Your task to perform on an android device: Is it going to rain tomorrow? Image 0: 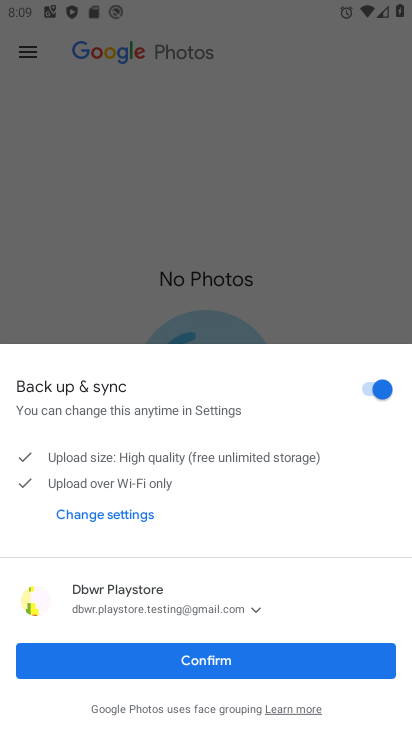
Step 0: press home button
Your task to perform on an android device: Is it going to rain tomorrow? Image 1: 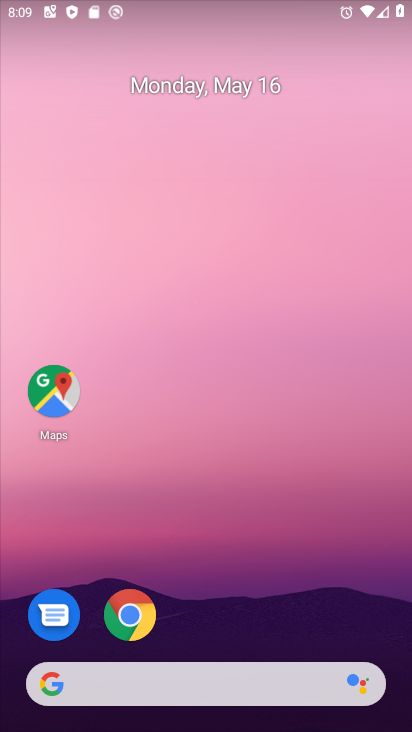
Step 1: click (270, 693)
Your task to perform on an android device: Is it going to rain tomorrow? Image 2: 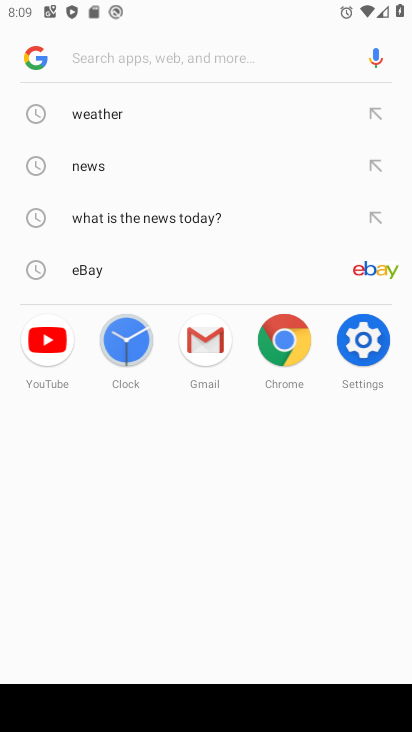
Step 2: click (127, 109)
Your task to perform on an android device: Is it going to rain tomorrow? Image 3: 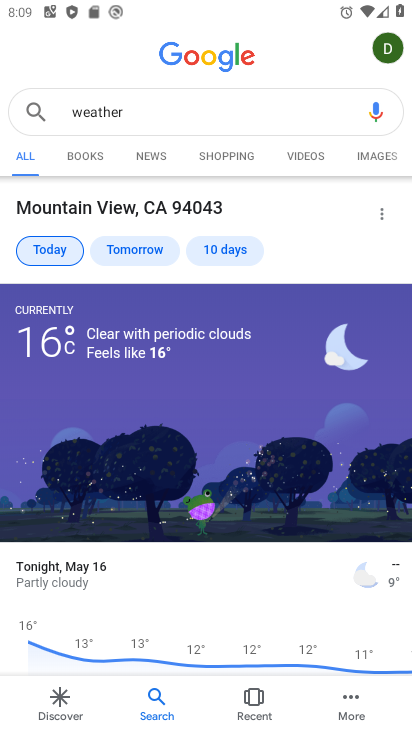
Step 3: drag from (130, 558) to (221, 165)
Your task to perform on an android device: Is it going to rain tomorrow? Image 4: 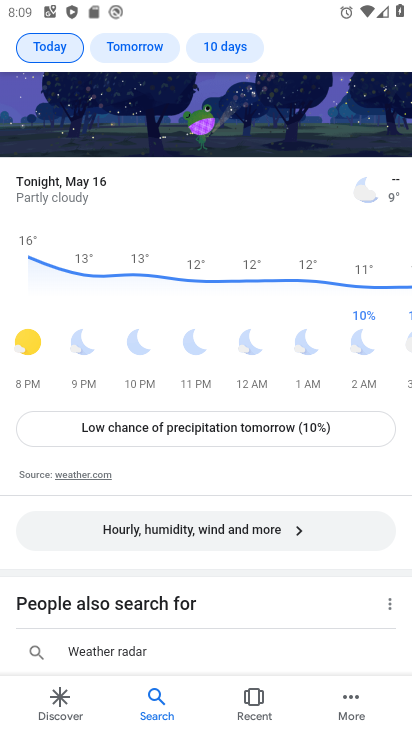
Step 4: click (74, 477)
Your task to perform on an android device: Is it going to rain tomorrow? Image 5: 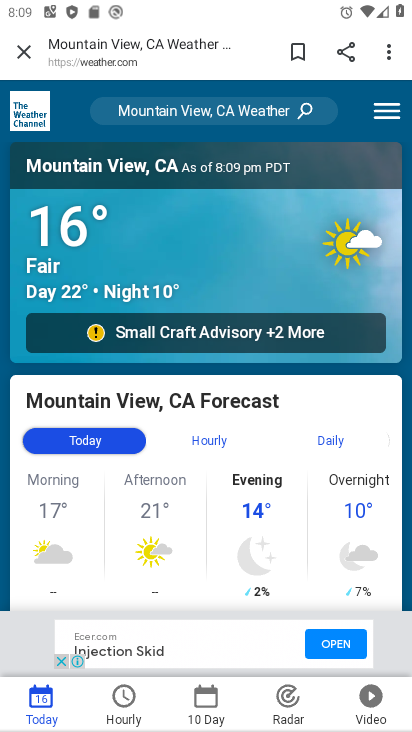
Step 5: click (205, 702)
Your task to perform on an android device: Is it going to rain tomorrow? Image 6: 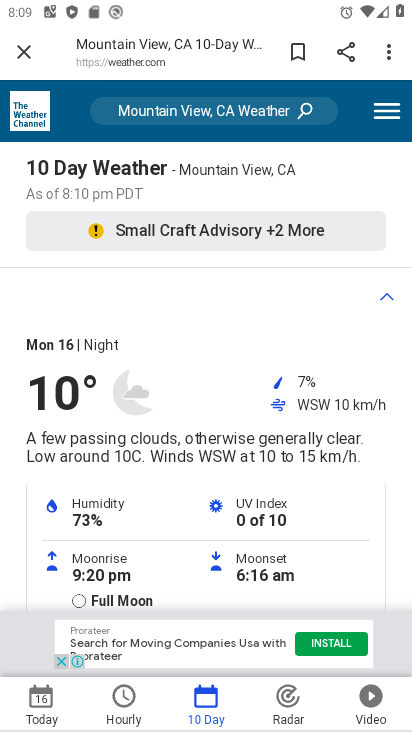
Step 6: drag from (174, 598) to (235, 236)
Your task to perform on an android device: Is it going to rain tomorrow? Image 7: 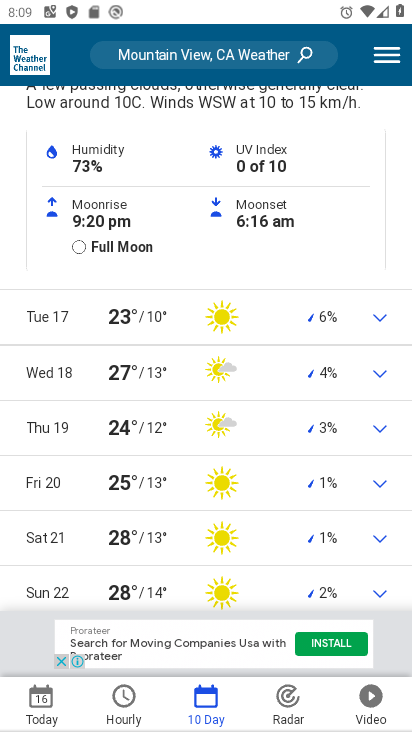
Step 7: click (194, 322)
Your task to perform on an android device: Is it going to rain tomorrow? Image 8: 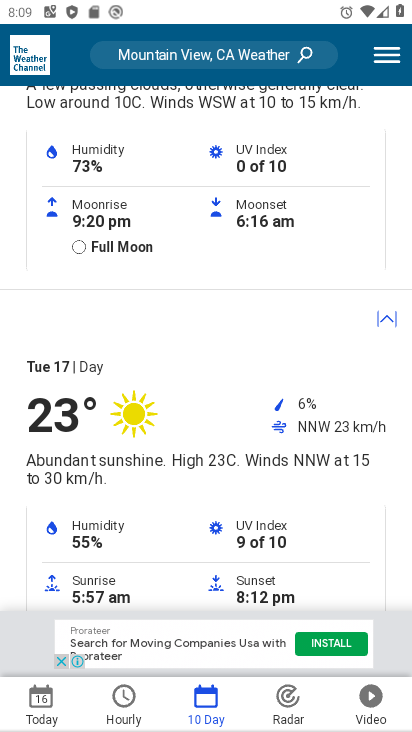
Step 8: task complete